Your task to perform on an android device: open device folders in google photos Image 0: 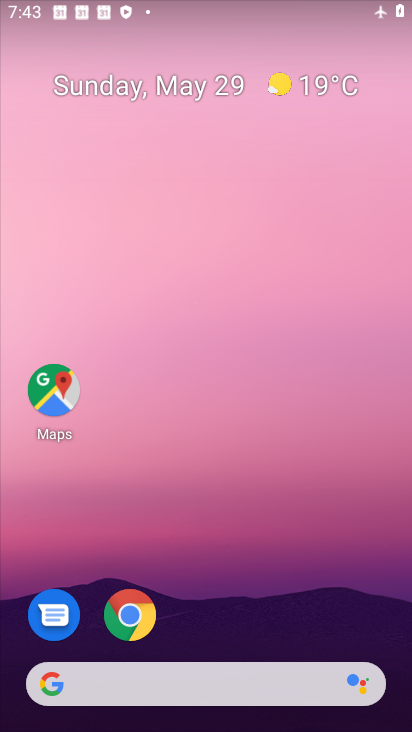
Step 0: drag from (115, 729) to (163, 116)
Your task to perform on an android device: open device folders in google photos Image 1: 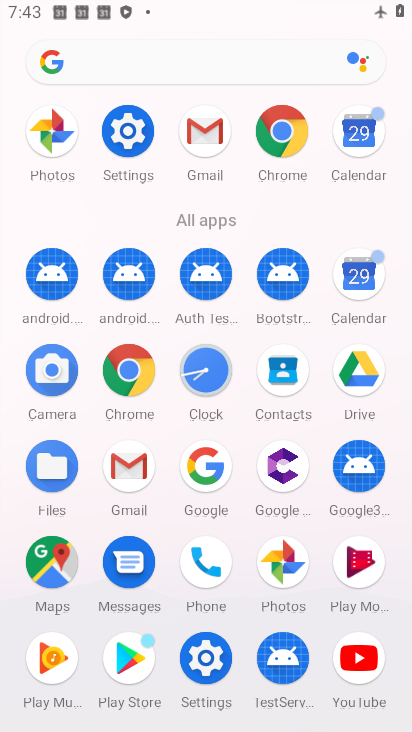
Step 1: click (282, 565)
Your task to perform on an android device: open device folders in google photos Image 2: 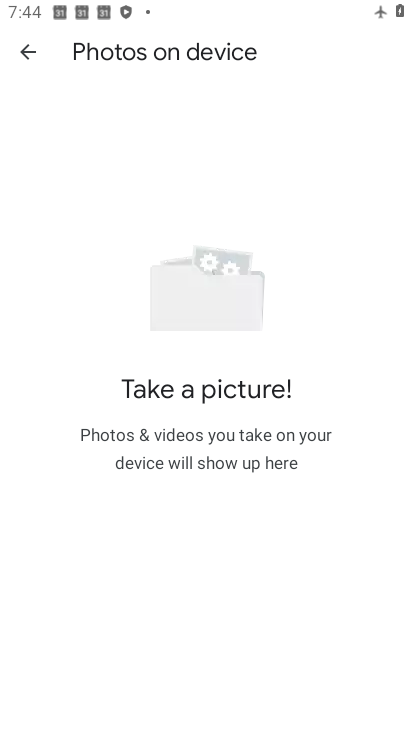
Step 2: task complete